Your task to perform on an android device: remove spam from my inbox in the gmail app Image 0: 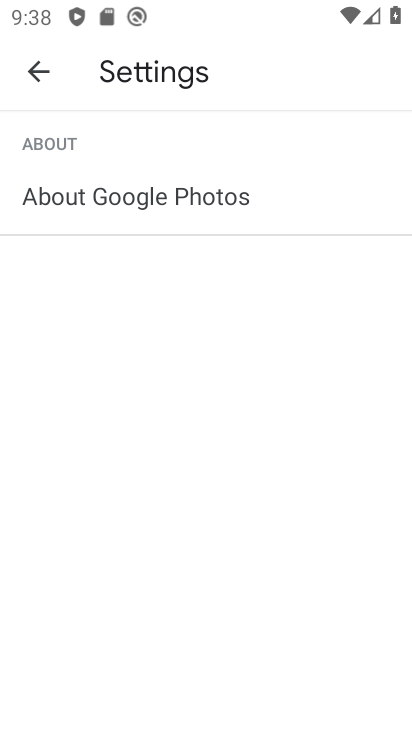
Step 0: press home button
Your task to perform on an android device: remove spam from my inbox in the gmail app Image 1: 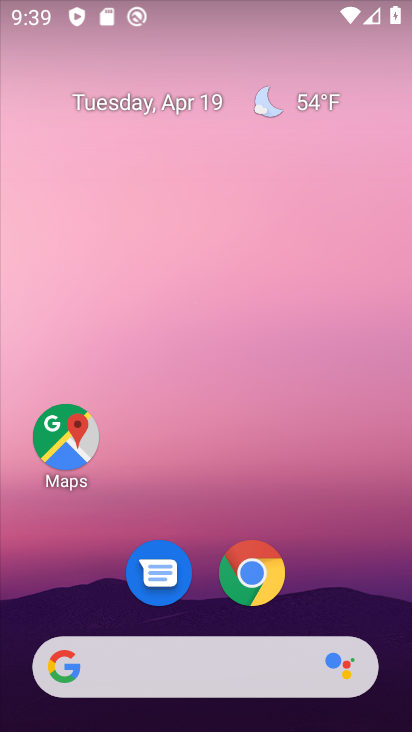
Step 1: drag from (377, 639) to (378, 2)
Your task to perform on an android device: remove spam from my inbox in the gmail app Image 2: 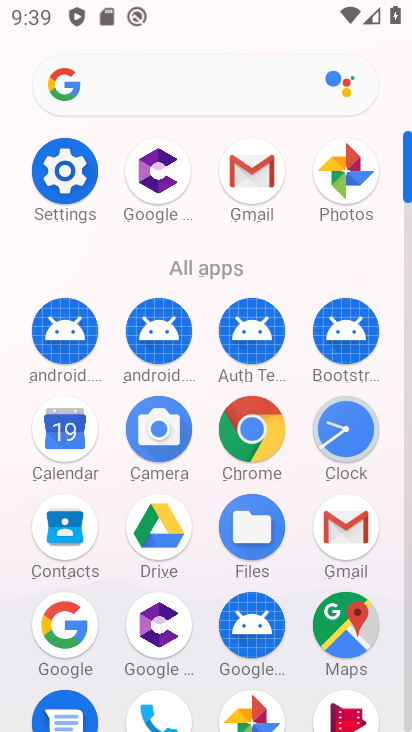
Step 2: click (250, 185)
Your task to perform on an android device: remove spam from my inbox in the gmail app Image 3: 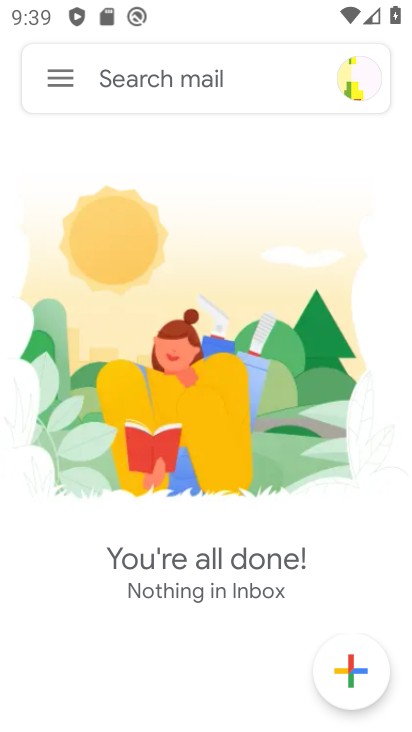
Step 3: click (65, 79)
Your task to perform on an android device: remove spam from my inbox in the gmail app Image 4: 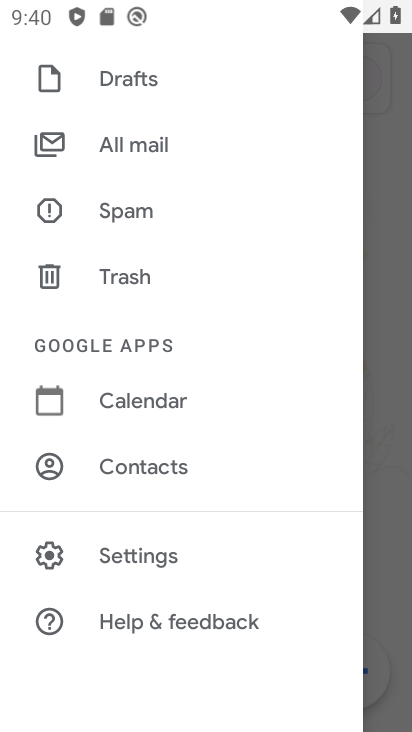
Step 4: click (106, 221)
Your task to perform on an android device: remove spam from my inbox in the gmail app Image 5: 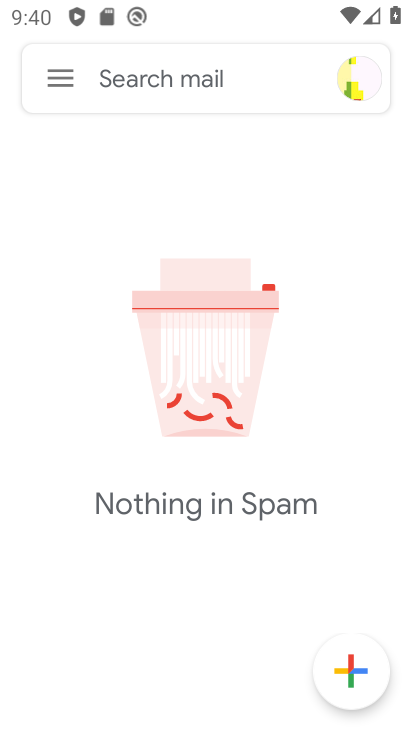
Step 5: task complete